Your task to perform on an android device: Show me popular videos on Youtube Image 0: 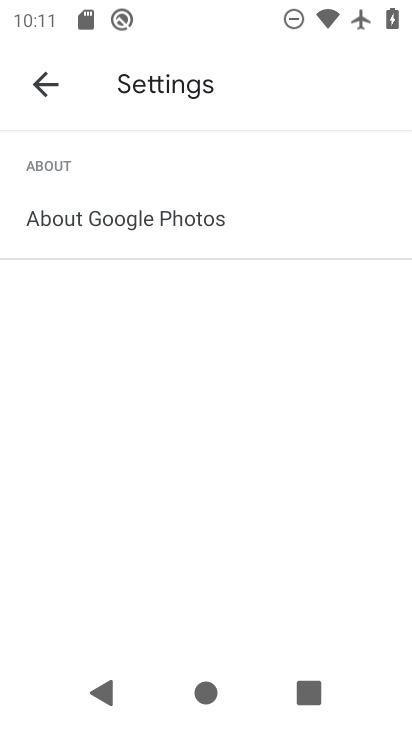
Step 0: press home button
Your task to perform on an android device: Show me popular videos on Youtube Image 1: 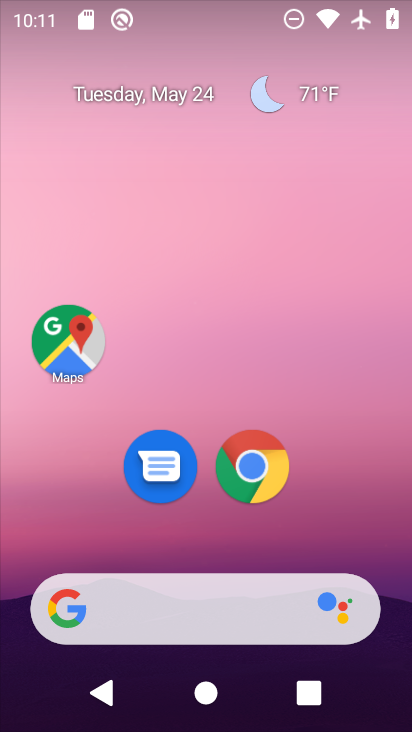
Step 1: drag from (230, 444) to (213, 0)
Your task to perform on an android device: Show me popular videos on Youtube Image 2: 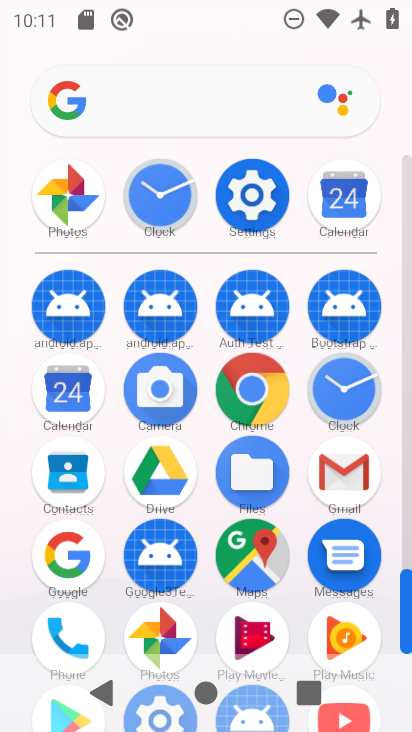
Step 2: drag from (176, 610) to (217, 182)
Your task to perform on an android device: Show me popular videos on Youtube Image 3: 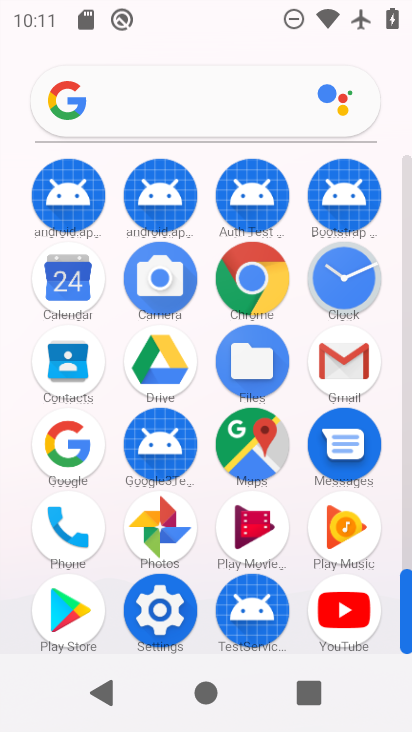
Step 3: click (338, 625)
Your task to perform on an android device: Show me popular videos on Youtube Image 4: 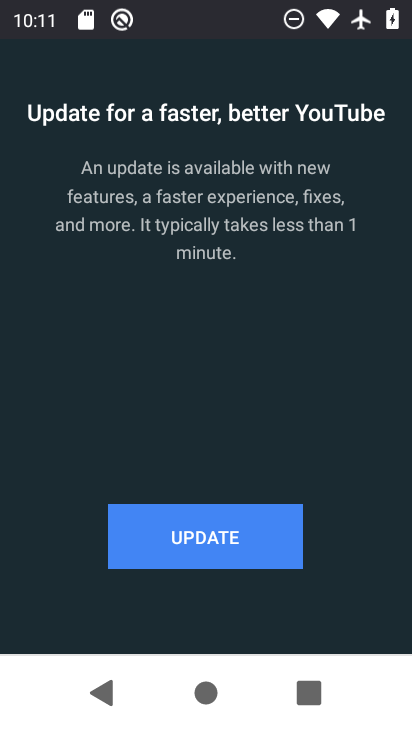
Step 4: click (241, 559)
Your task to perform on an android device: Show me popular videos on Youtube Image 5: 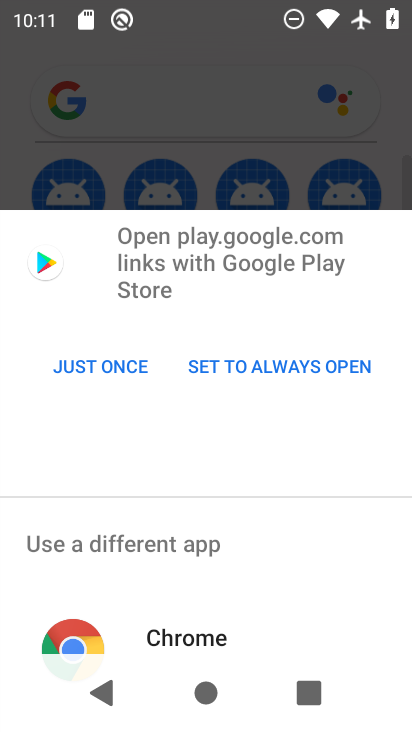
Step 5: click (106, 372)
Your task to perform on an android device: Show me popular videos on Youtube Image 6: 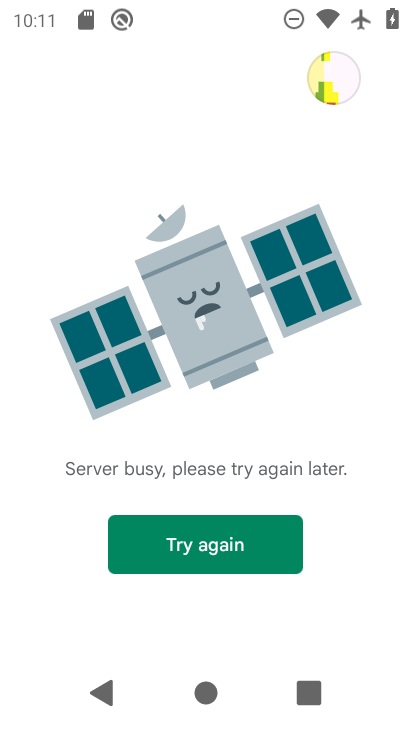
Step 6: click (227, 550)
Your task to perform on an android device: Show me popular videos on Youtube Image 7: 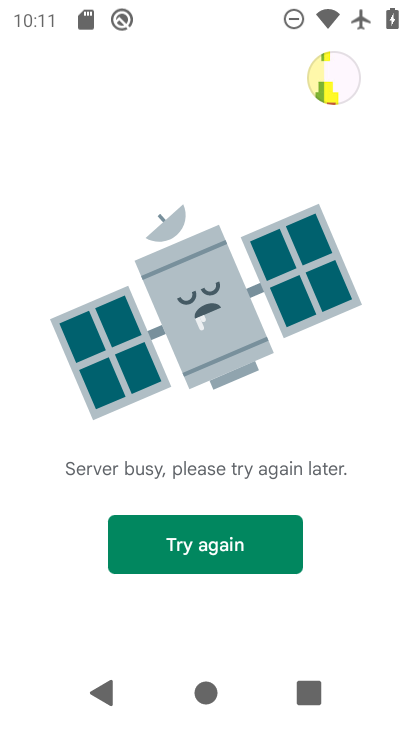
Step 7: click (227, 550)
Your task to perform on an android device: Show me popular videos on Youtube Image 8: 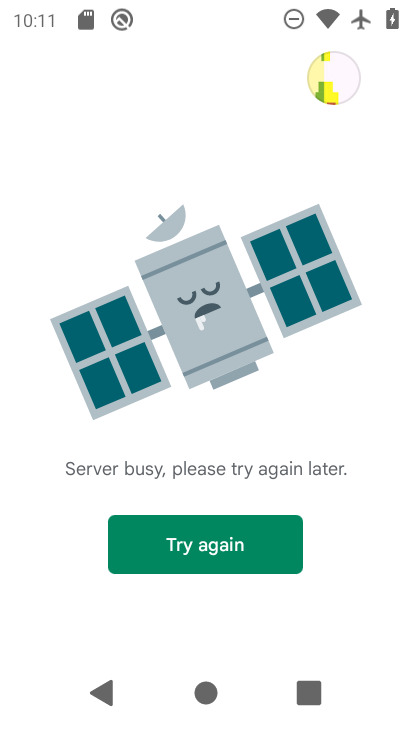
Step 8: click (228, 550)
Your task to perform on an android device: Show me popular videos on Youtube Image 9: 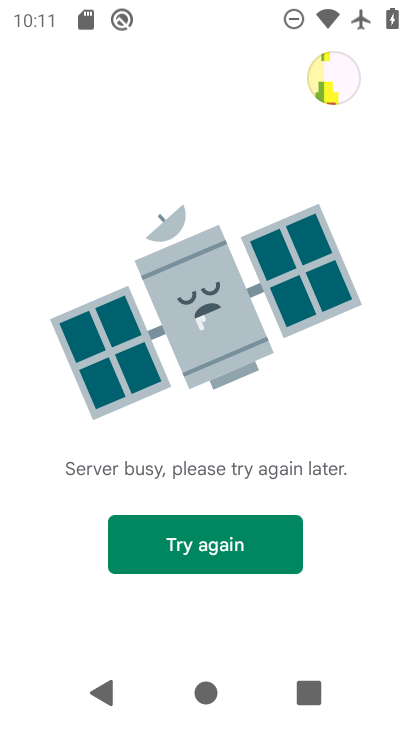
Step 9: task complete